Your task to perform on an android device: Go to ESPN.com Image 0: 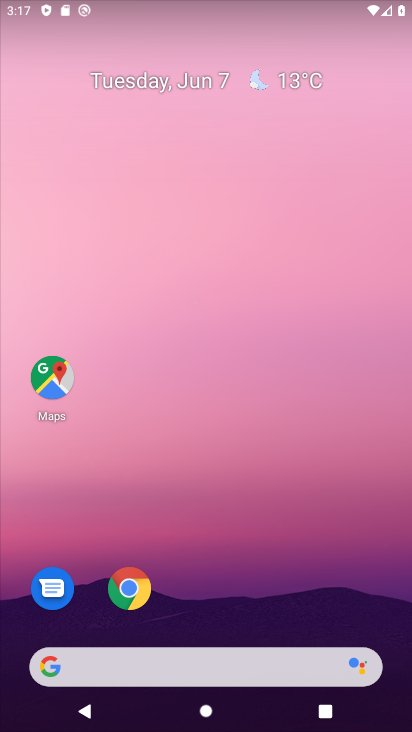
Step 0: click (118, 594)
Your task to perform on an android device: Go to ESPN.com Image 1: 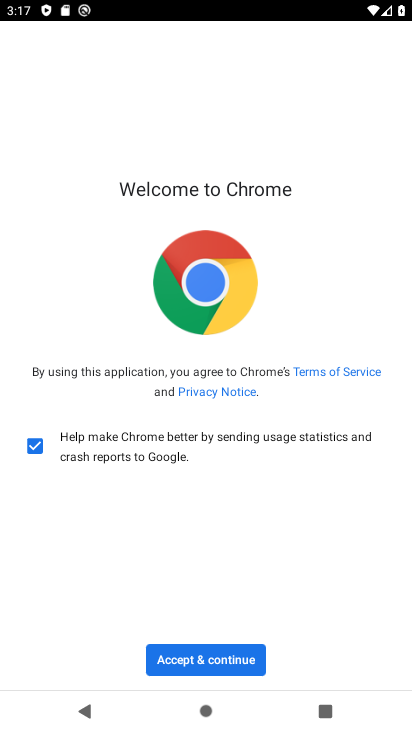
Step 1: click (214, 652)
Your task to perform on an android device: Go to ESPN.com Image 2: 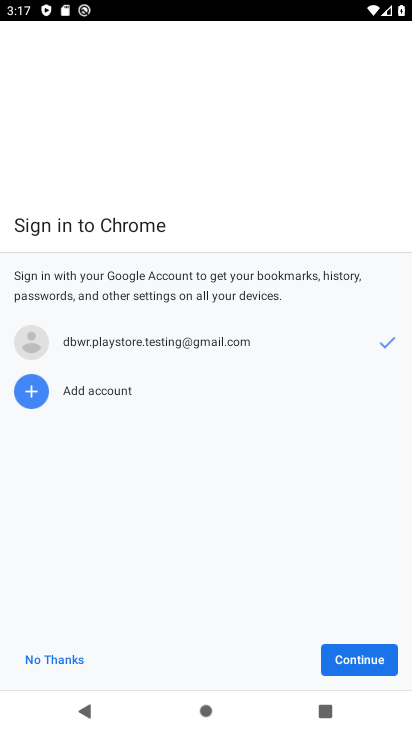
Step 2: click (384, 656)
Your task to perform on an android device: Go to ESPN.com Image 3: 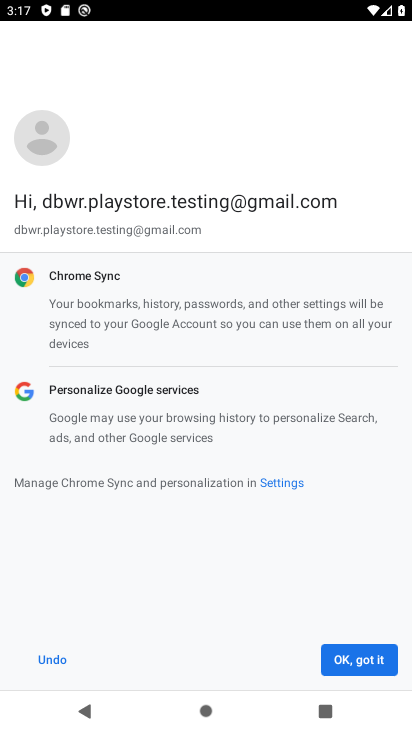
Step 3: click (378, 660)
Your task to perform on an android device: Go to ESPN.com Image 4: 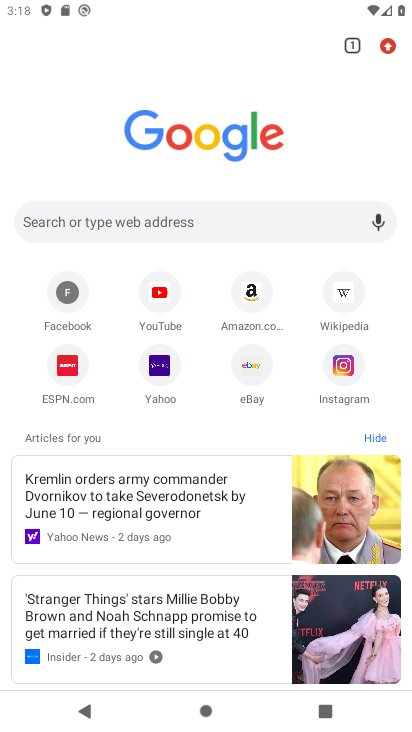
Step 4: click (64, 361)
Your task to perform on an android device: Go to ESPN.com Image 5: 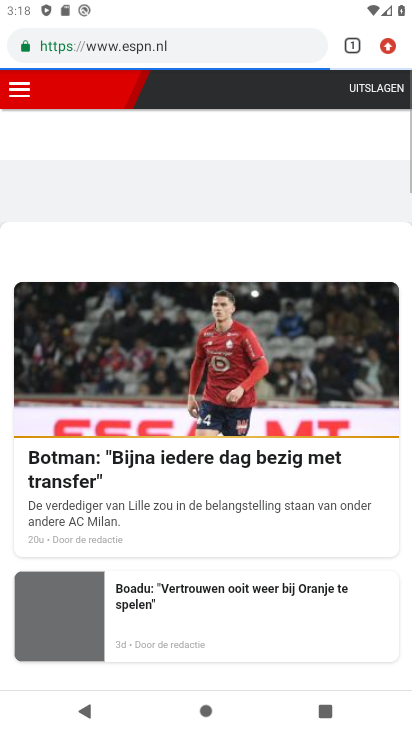
Step 5: task complete